Your task to perform on an android device: Turn on the flashlight Image 0: 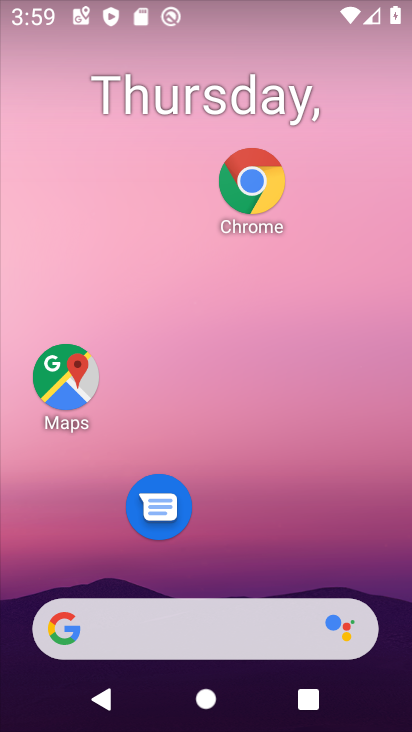
Step 0: click (293, 441)
Your task to perform on an android device: Turn on the flashlight Image 1: 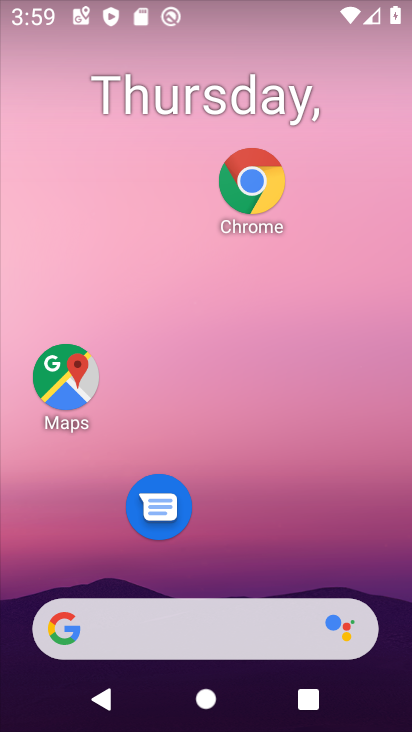
Step 1: click (195, 320)
Your task to perform on an android device: Turn on the flashlight Image 2: 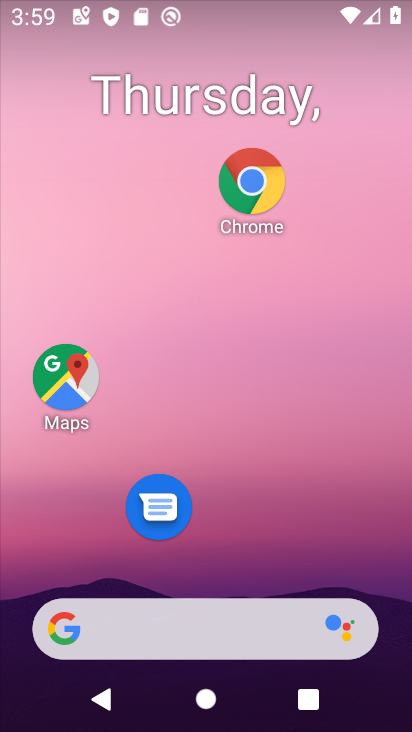
Step 2: drag from (229, 393) to (212, 252)
Your task to perform on an android device: Turn on the flashlight Image 3: 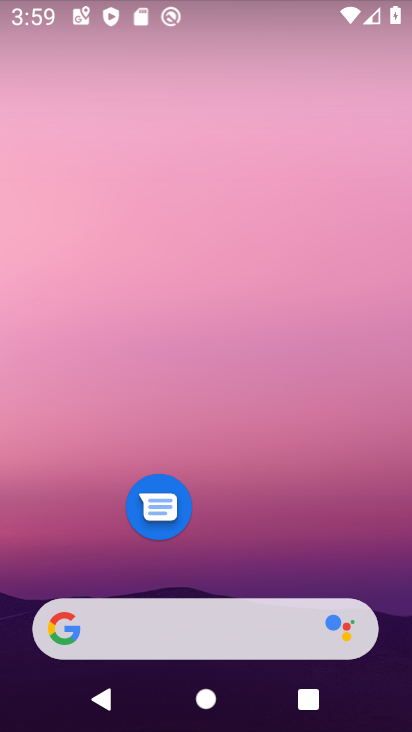
Step 3: click (195, 182)
Your task to perform on an android device: Turn on the flashlight Image 4: 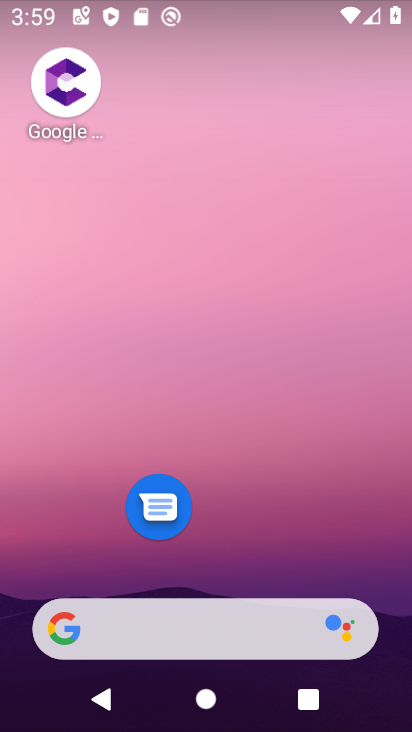
Step 4: click (191, 113)
Your task to perform on an android device: Turn on the flashlight Image 5: 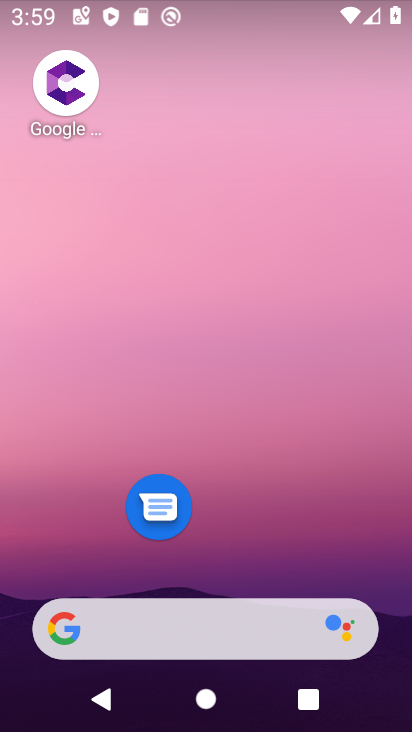
Step 5: click (195, 17)
Your task to perform on an android device: Turn on the flashlight Image 6: 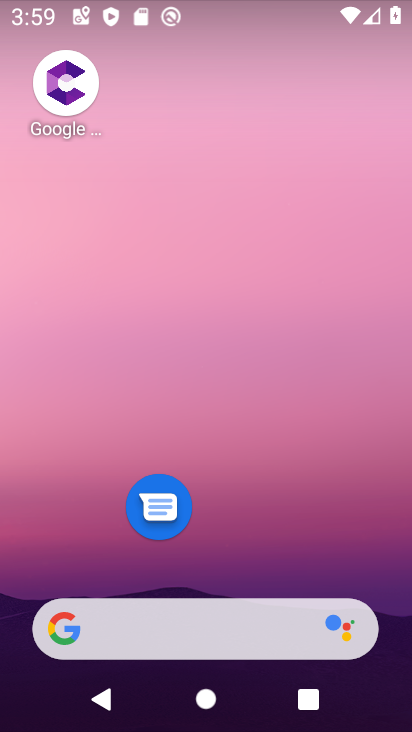
Step 6: drag from (210, 340) to (206, 12)
Your task to perform on an android device: Turn on the flashlight Image 7: 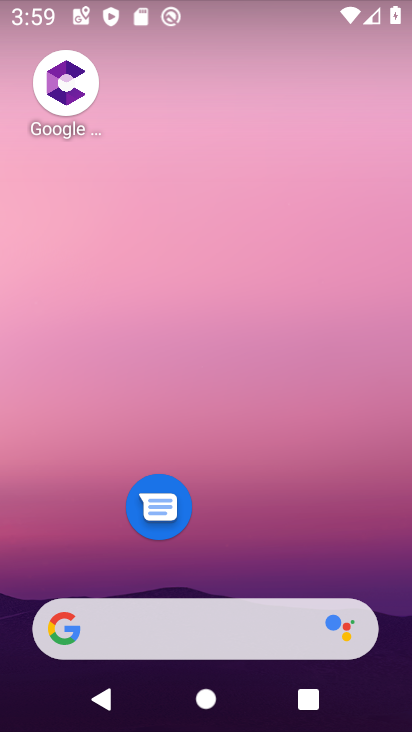
Step 7: click (281, 295)
Your task to perform on an android device: Turn on the flashlight Image 8: 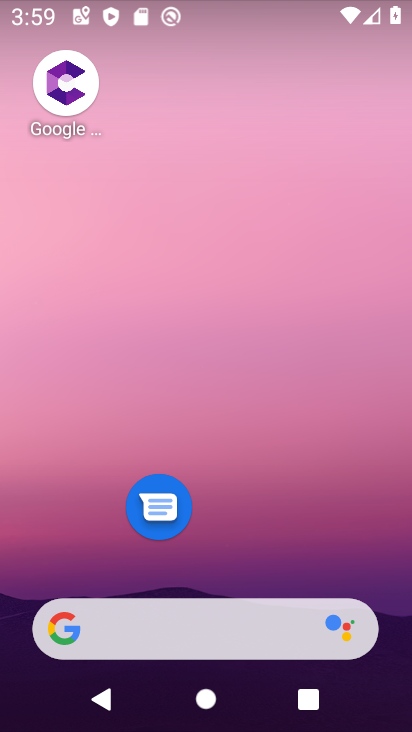
Step 8: click (249, 71)
Your task to perform on an android device: Turn on the flashlight Image 9: 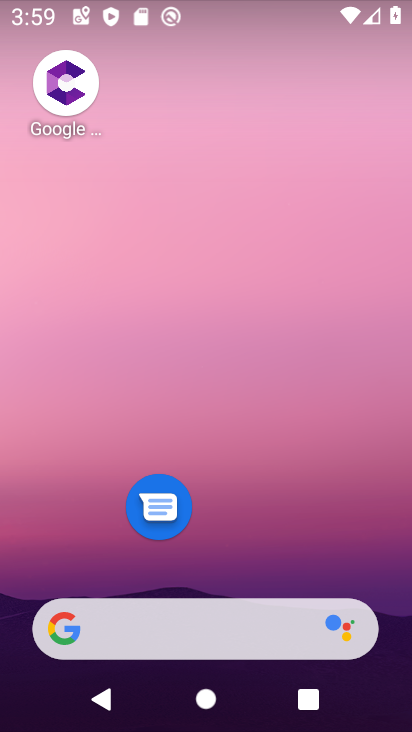
Step 9: click (213, 187)
Your task to perform on an android device: Turn on the flashlight Image 10: 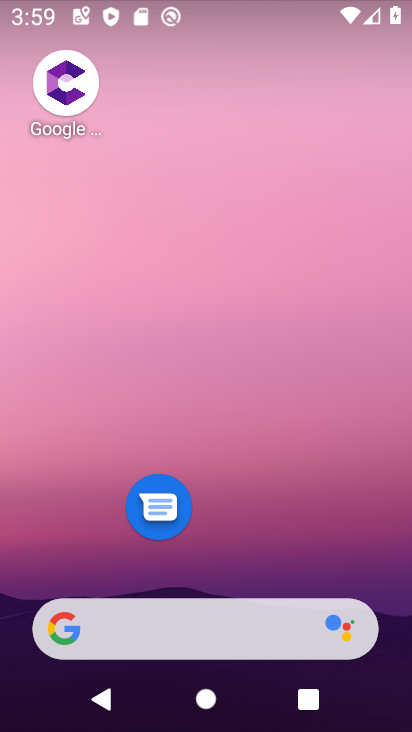
Step 10: task complete